Your task to perform on an android device: Open Google Image 0: 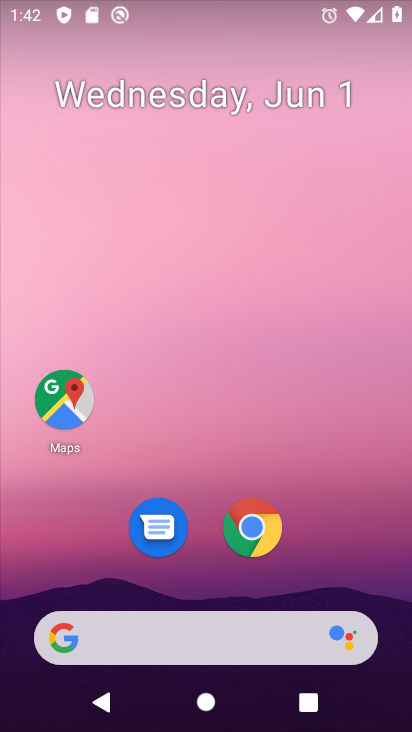
Step 0: drag from (347, 572) to (276, 92)
Your task to perform on an android device: Open Google Image 1: 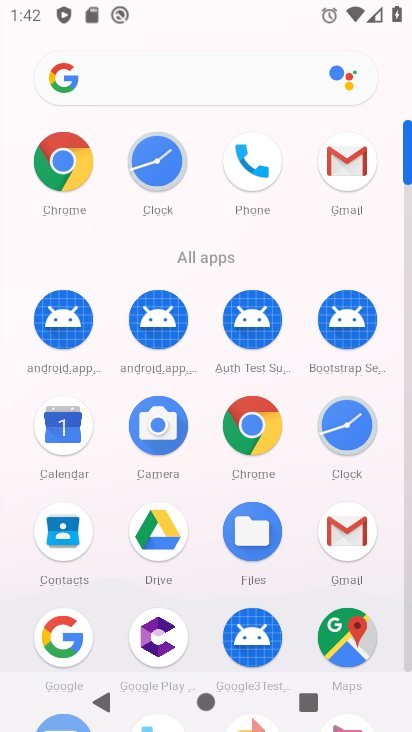
Step 1: click (70, 640)
Your task to perform on an android device: Open Google Image 2: 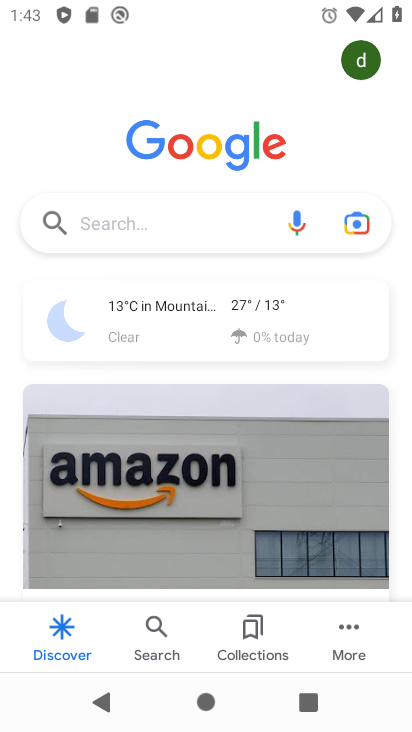
Step 2: task complete